Your task to perform on an android device: turn off notifications in google photos Image 0: 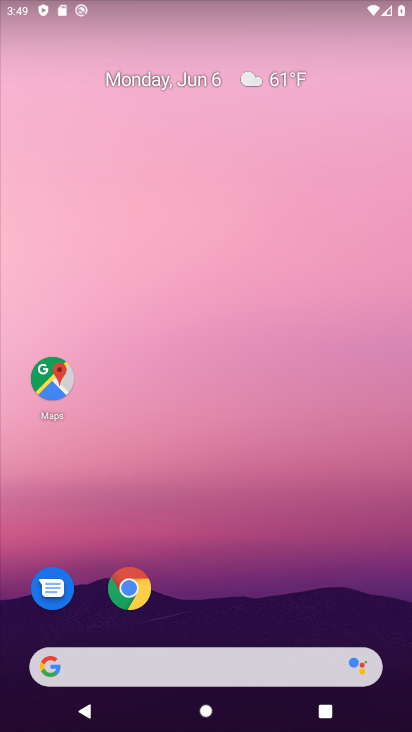
Step 0: click (336, 383)
Your task to perform on an android device: turn off notifications in google photos Image 1: 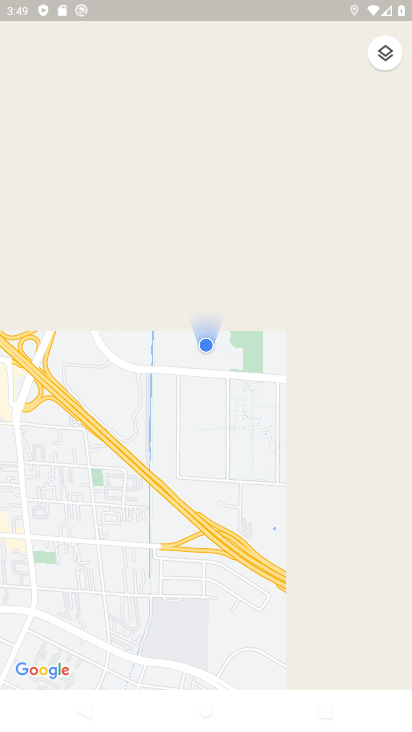
Step 1: press back button
Your task to perform on an android device: turn off notifications in google photos Image 2: 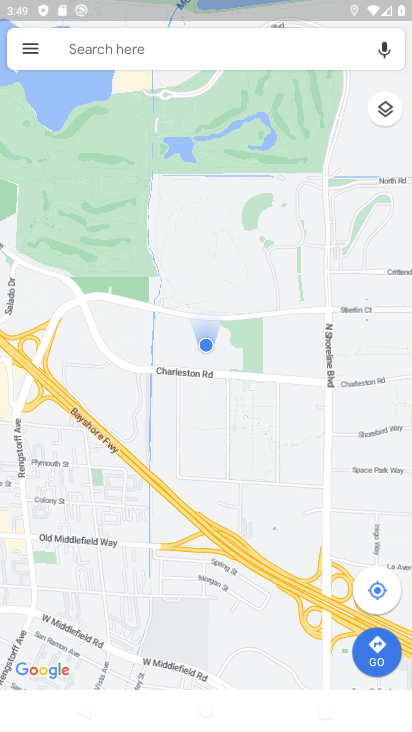
Step 2: press home button
Your task to perform on an android device: turn off notifications in google photos Image 3: 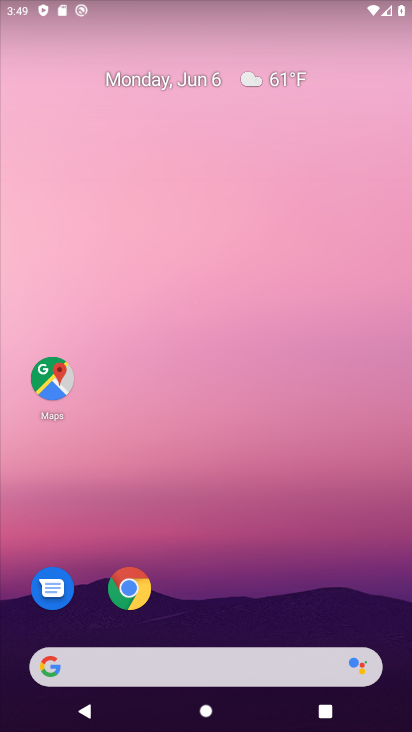
Step 3: drag from (290, 655) to (134, 95)
Your task to perform on an android device: turn off notifications in google photos Image 4: 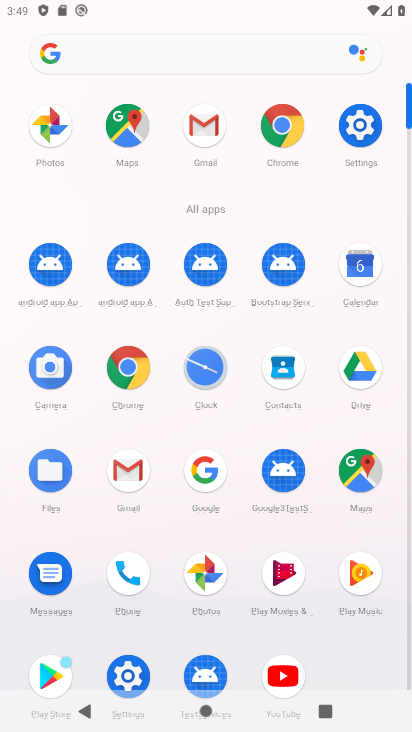
Step 4: click (217, 556)
Your task to perform on an android device: turn off notifications in google photos Image 5: 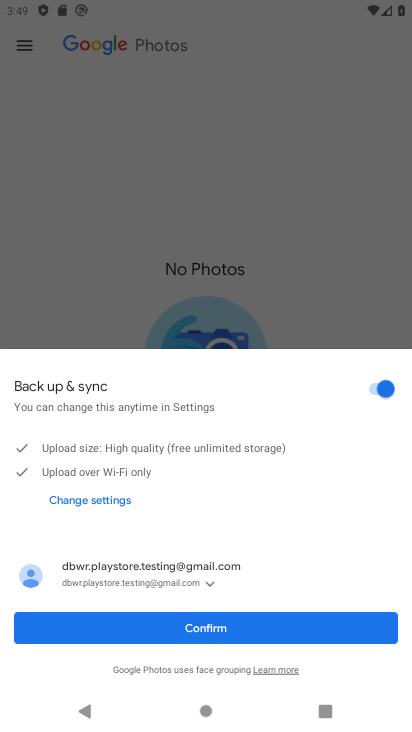
Step 5: click (205, 632)
Your task to perform on an android device: turn off notifications in google photos Image 6: 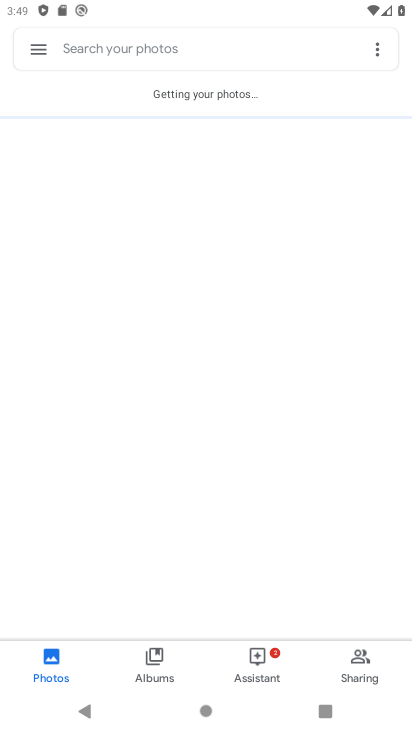
Step 6: click (35, 34)
Your task to perform on an android device: turn off notifications in google photos Image 7: 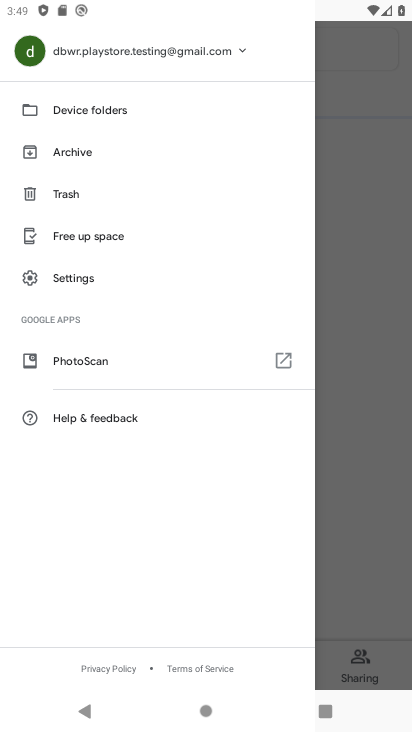
Step 7: click (70, 283)
Your task to perform on an android device: turn off notifications in google photos Image 8: 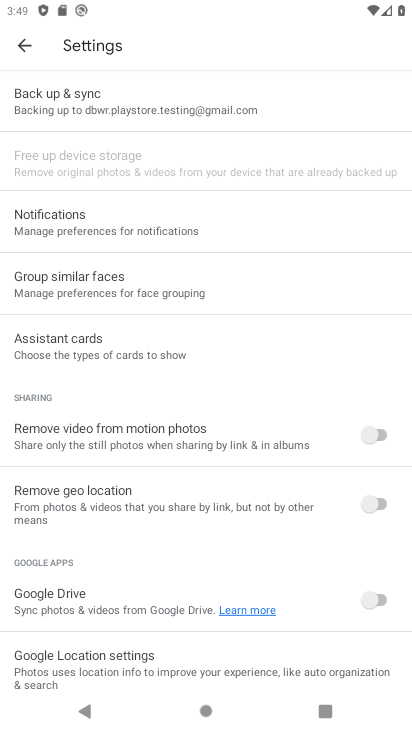
Step 8: click (59, 109)
Your task to perform on an android device: turn off notifications in google photos Image 9: 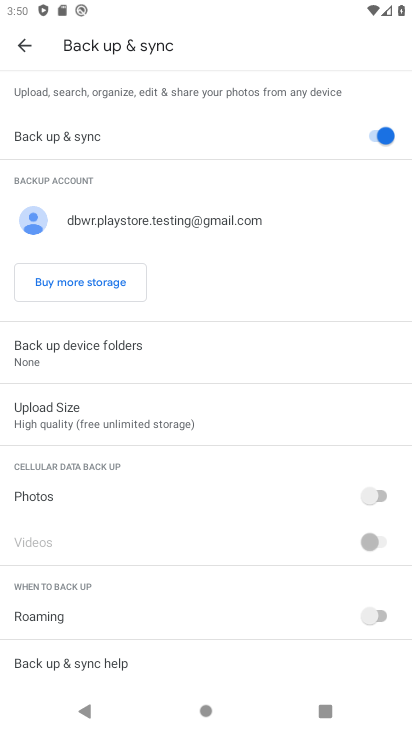
Step 9: click (22, 45)
Your task to perform on an android device: turn off notifications in google photos Image 10: 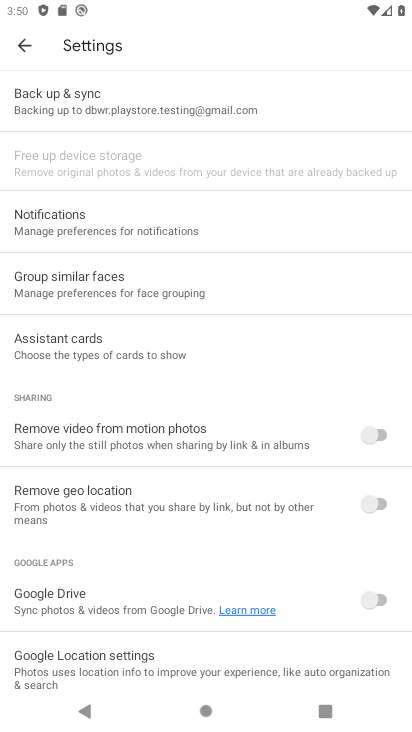
Step 10: click (75, 225)
Your task to perform on an android device: turn off notifications in google photos Image 11: 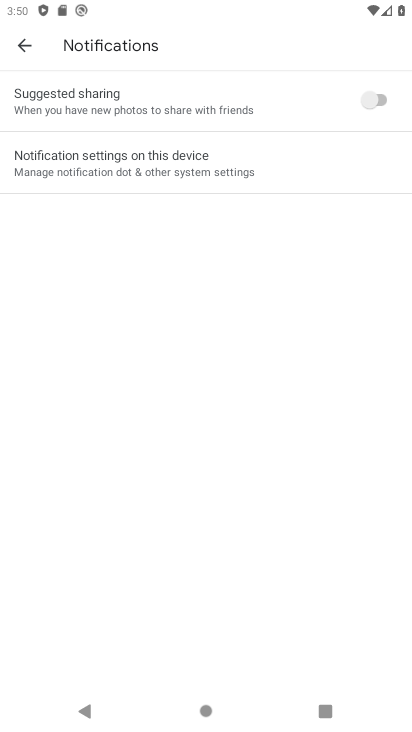
Step 11: click (16, 42)
Your task to perform on an android device: turn off notifications in google photos Image 12: 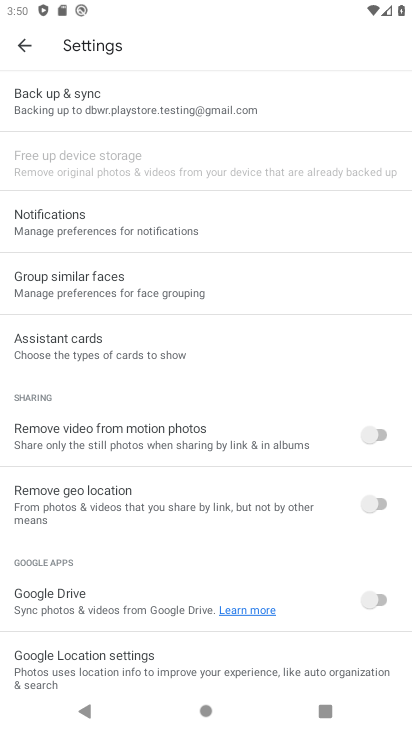
Step 12: drag from (128, 553) to (148, 180)
Your task to perform on an android device: turn off notifications in google photos Image 13: 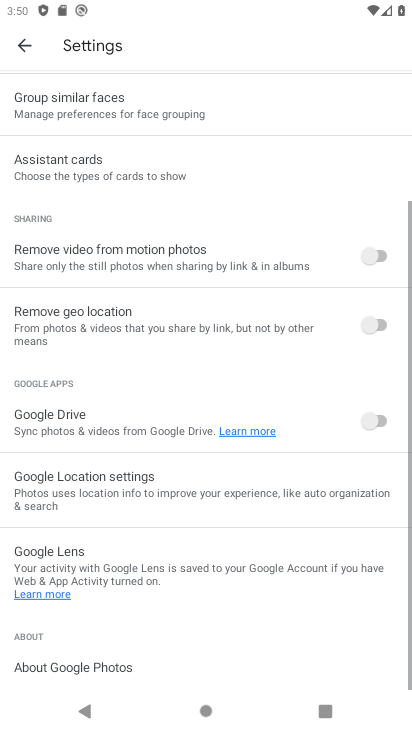
Step 13: click (182, 207)
Your task to perform on an android device: turn off notifications in google photos Image 14: 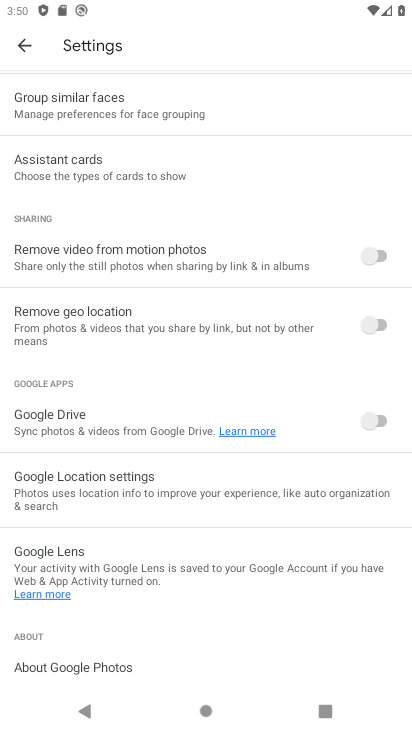
Step 14: drag from (182, 205) to (180, 620)
Your task to perform on an android device: turn off notifications in google photos Image 15: 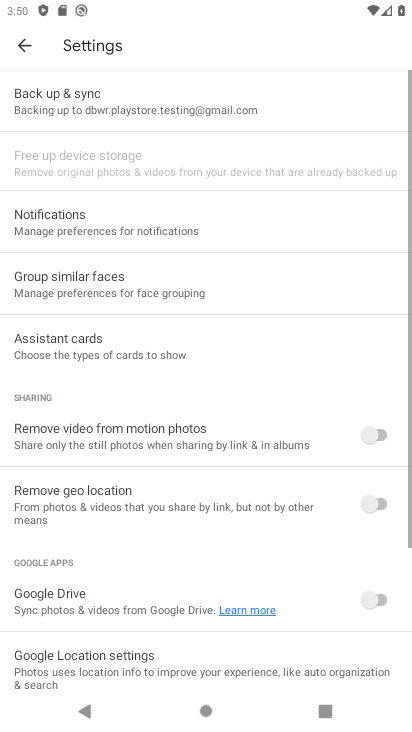
Step 15: drag from (23, 260) to (40, 730)
Your task to perform on an android device: turn off notifications in google photos Image 16: 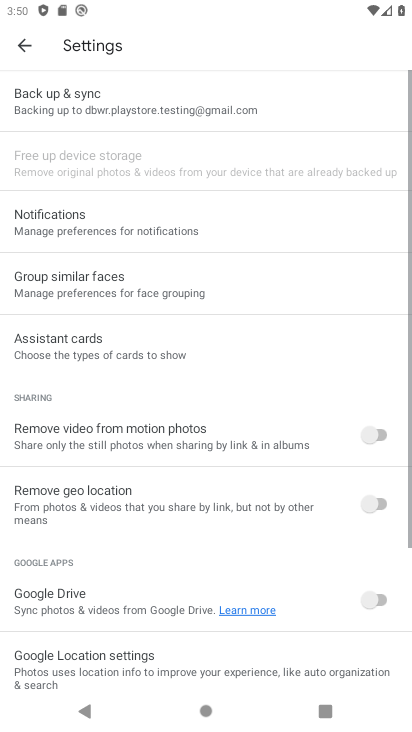
Step 16: click (15, 49)
Your task to perform on an android device: turn off notifications in google photos Image 17: 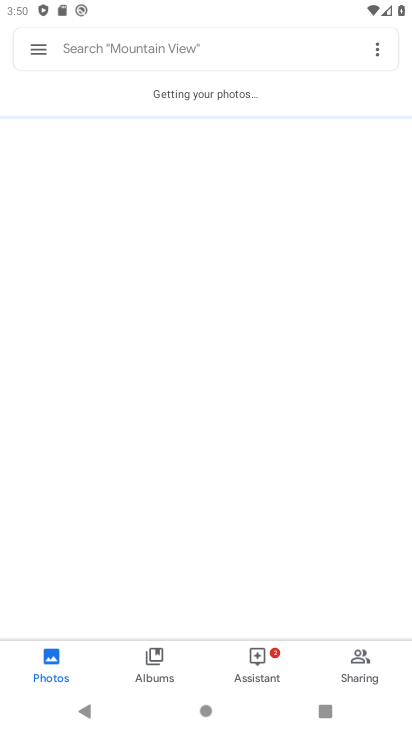
Step 17: click (34, 60)
Your task to perform on an android device: turn off notifications in google photos Image 18: 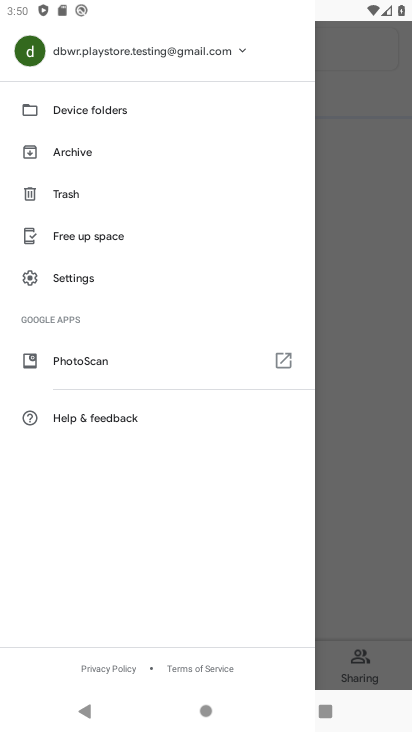
Step 18: click (77, 279)
Your task to perform on an android device: turn off notifications in google photos Image 19: 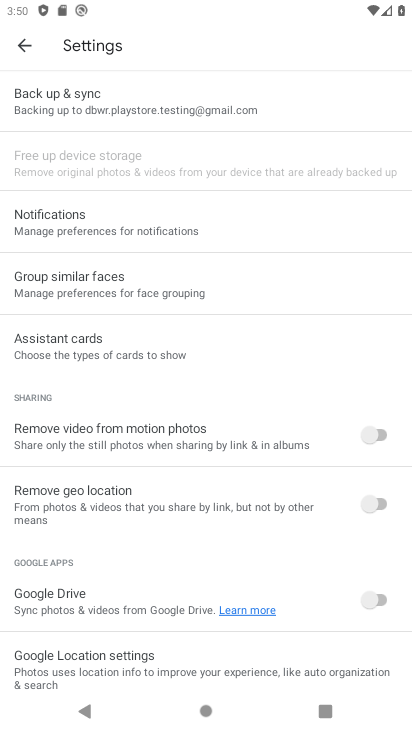
Step 19: click (59, 220)
Your task to perform on an android device: turn off notifications in google photos Image 20: 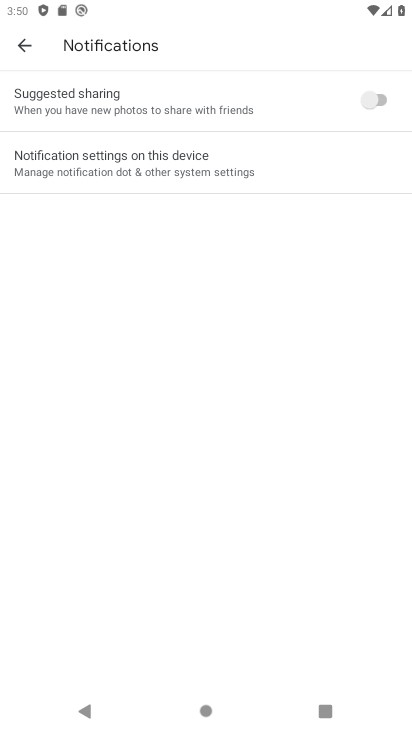
Step 20: click (135, 158)
Your task to perform on an android device: turn off notifications in google photos Image 21: 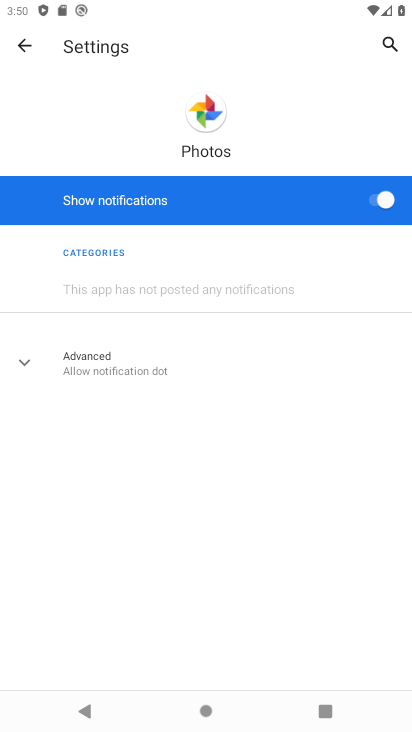
Step 21: click (383, 196)
Your task to perform on an android device: turn off notifications in google photos Image 22: 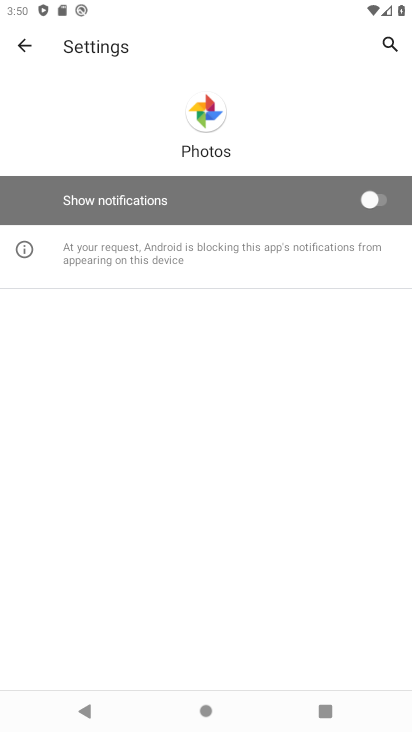
Step 22: task complete